Your task to perform on an android device: Go to privacy settings Image 0: 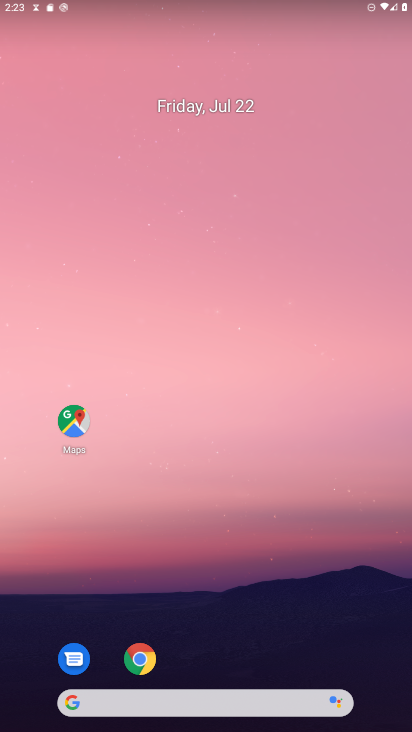
Step 0: drag from (334, 568) to (225, 57)
Your task to perform on an android device: Go to privacy settings Image 1: 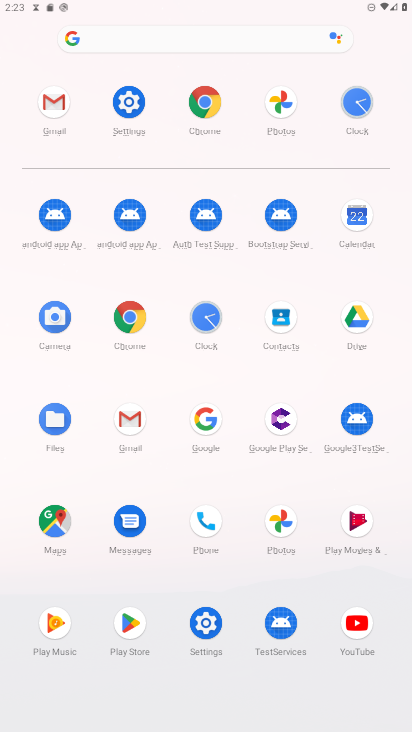
Step 1: click (124, 109)
Your task to perform on an android device: Go to privacy settings Image 2: 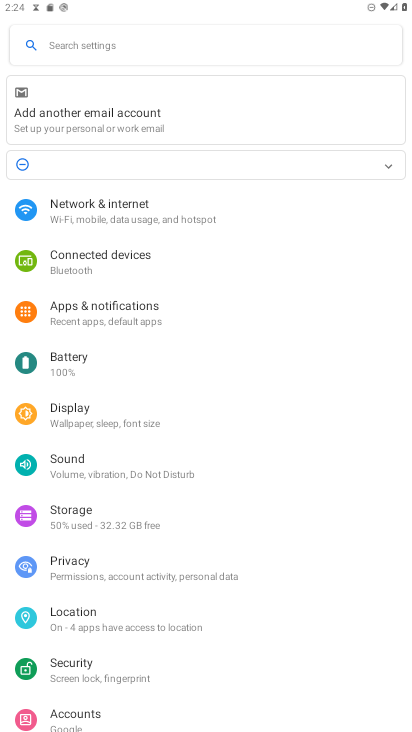
Step 2: click (142, 555)
Your task to perform on an android device: Go to privacy settings Image 3: 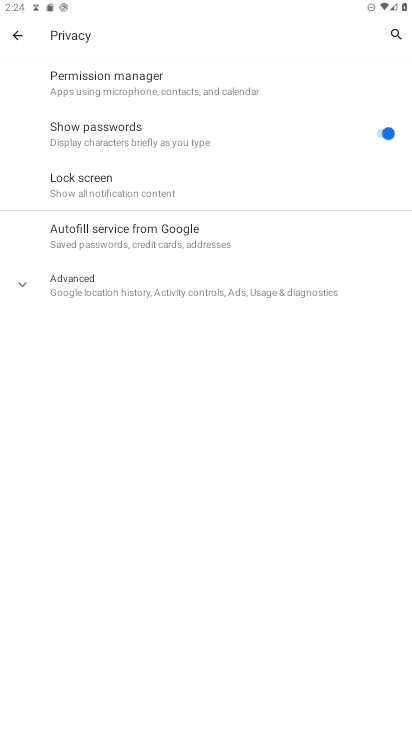
Step 3: task complete